Your task to perform on an android device: Open eBay Image 0: 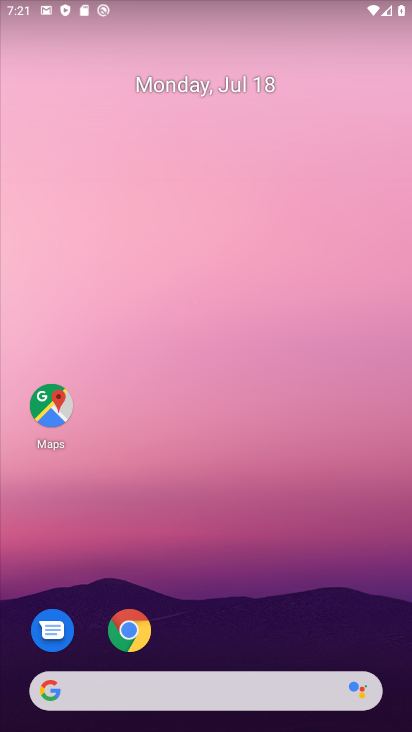
Step 0: press home button
Your task to perform on an android device: Open eBay Image 1: 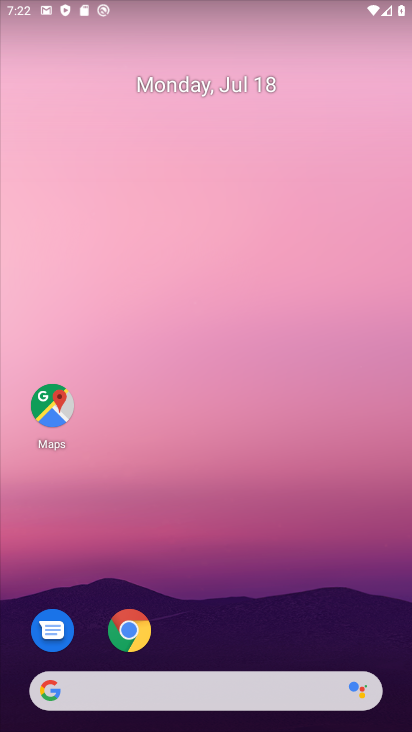
Step 1: click (132, 618)
Your task to perform on an android device: Open eBay Image 2: 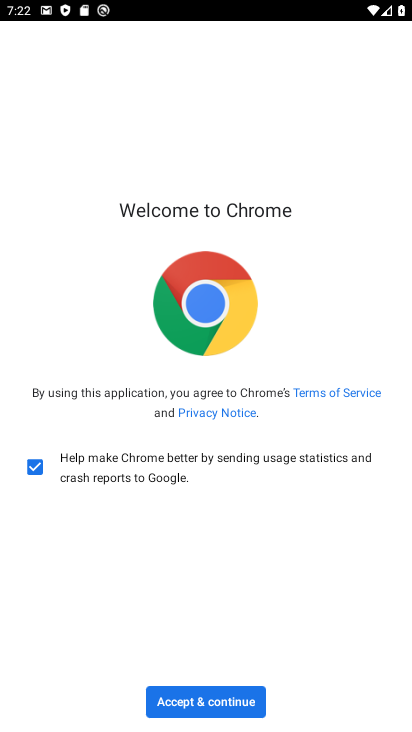
Step 2: click (181, 706)
Your task to perform on an android device: Open eBay Image 3: 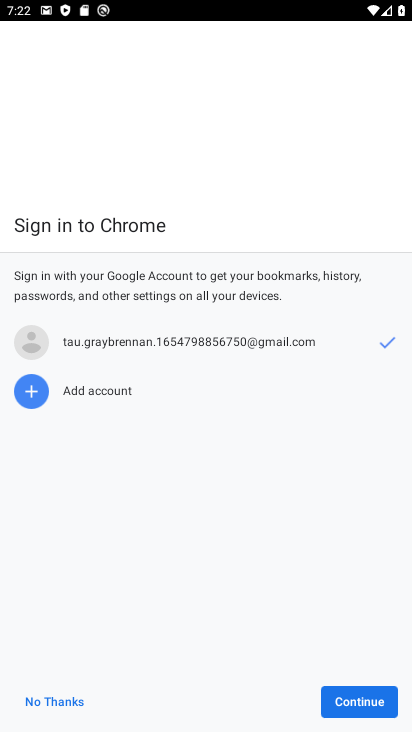
Step 3: click (360, 706)
Your task to perform on an android device: Open eBay Image 4: 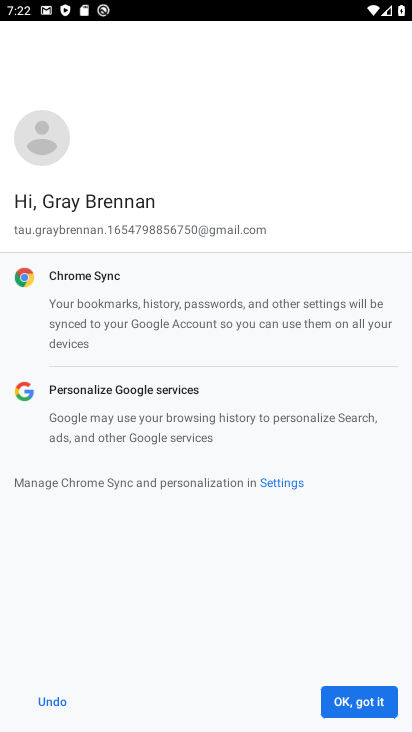
Step 4: click (383, 711)
Your task to perform on an android device: Open eBay Image 5: 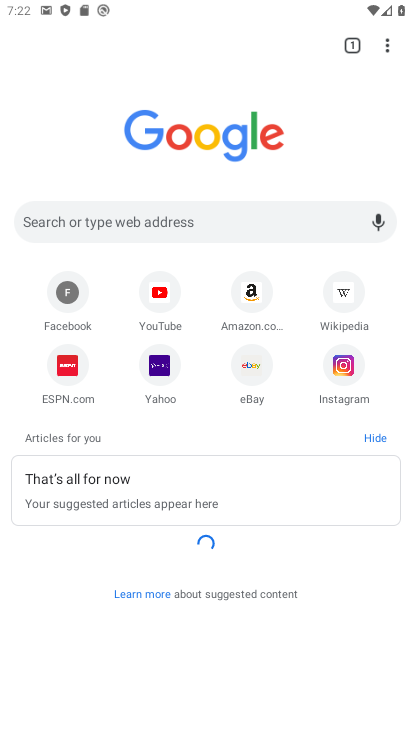
Step 5: click (258, 379)
Your task to perform on an android device: Open eBay Image 6: 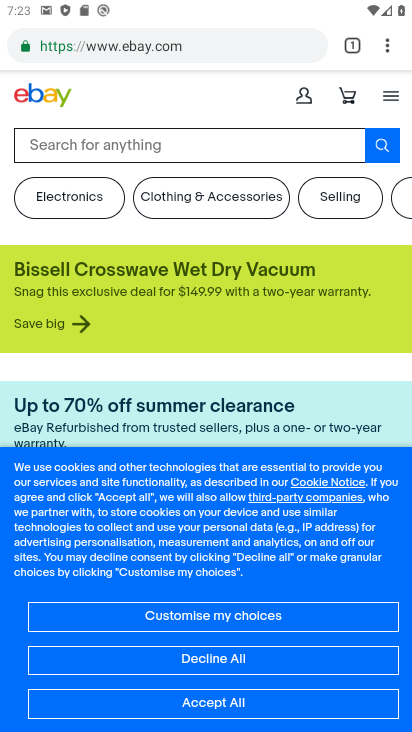
Step 6: task complete